Your task to perform on an android device: turn on javascript in the chrome app Image 0: 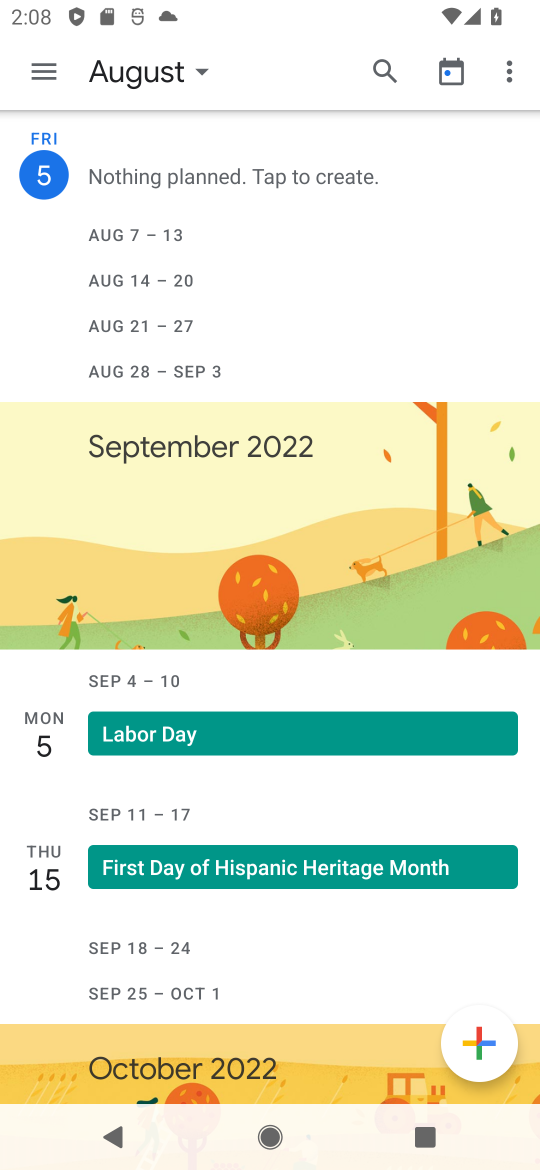
Step 0: press home button
Your task to perform on an android device: turn on javascript in the chrome app Image 1: 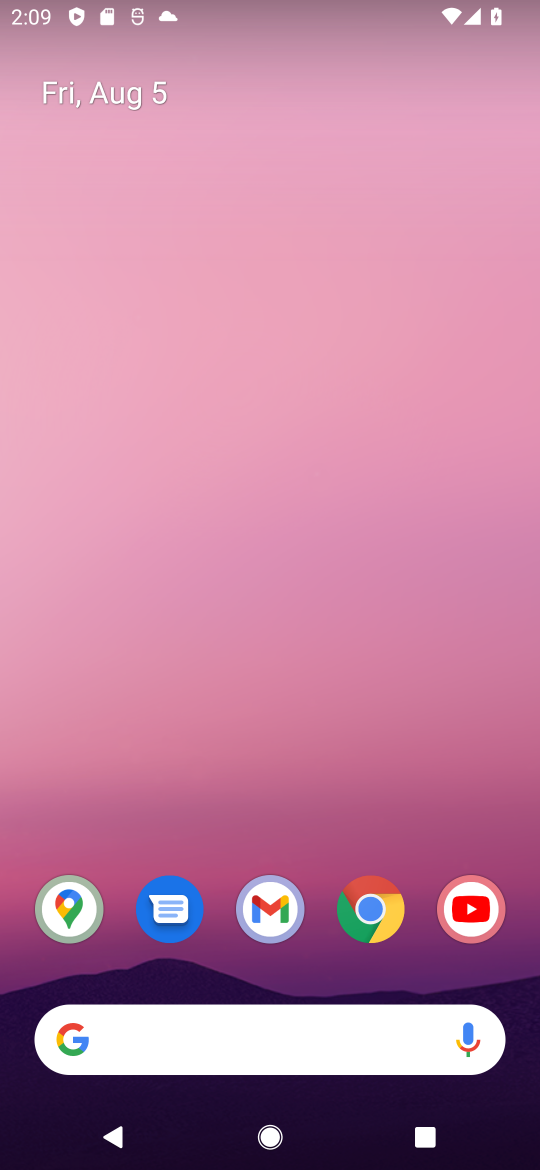
Step 1: click (368, 864)
Your task to perform on an android device: turn on javascript in the chrome app Image 2: 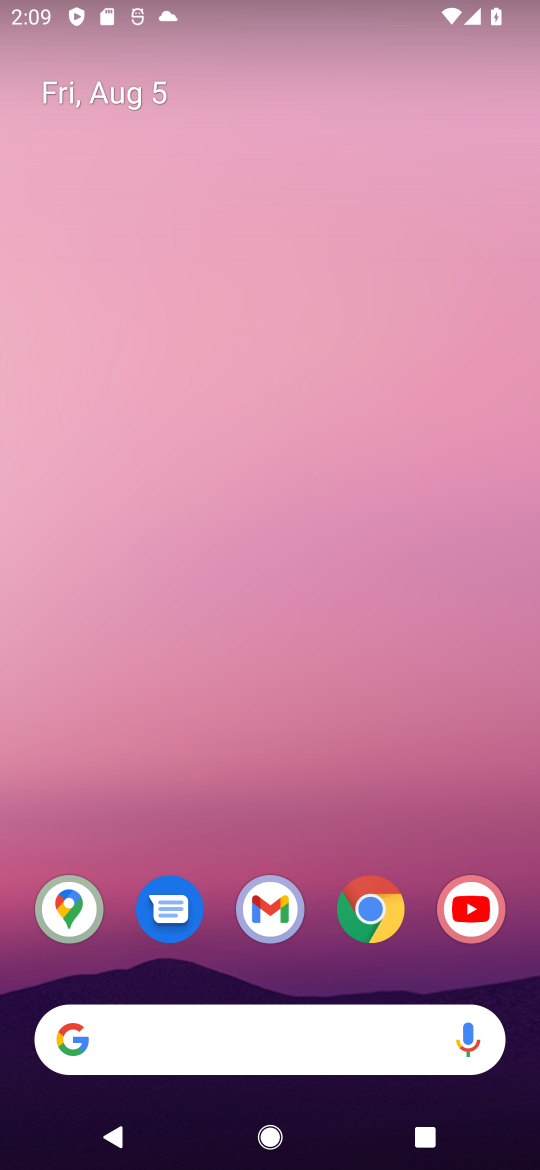
Step 2: click (374, 889)
Your task to perform on an android device: turn on javascript in the chrome app Image 3: 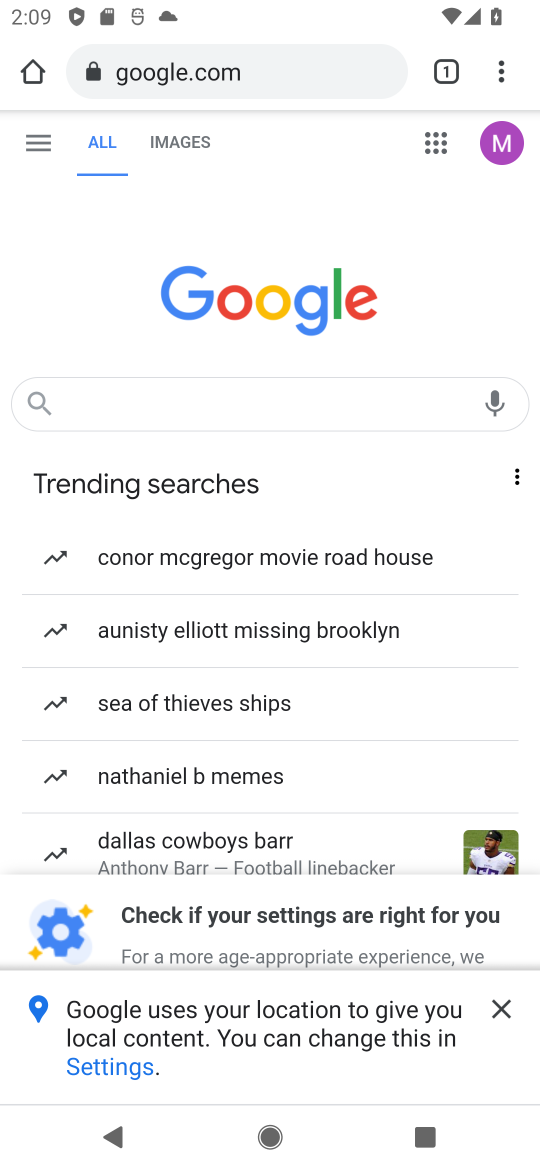
Step 3: click (504, 67)
Your task to perform on an android device: turn on javascript in the chrome app Image 4: 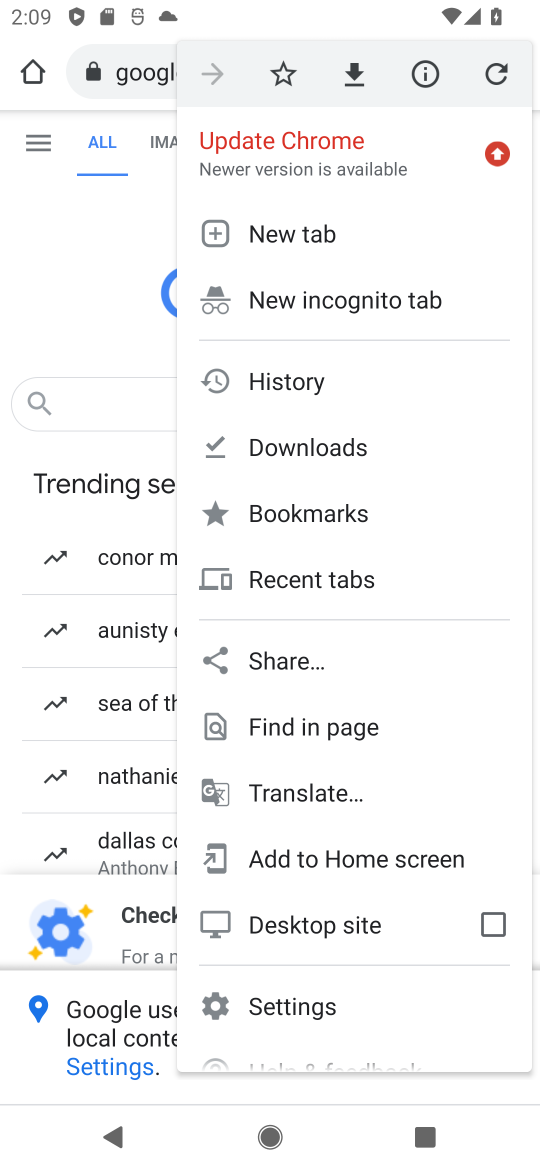
Step 4: click (312, 999)
Your task to perform on an android device: turn on javascript in the chrome app Image 5: 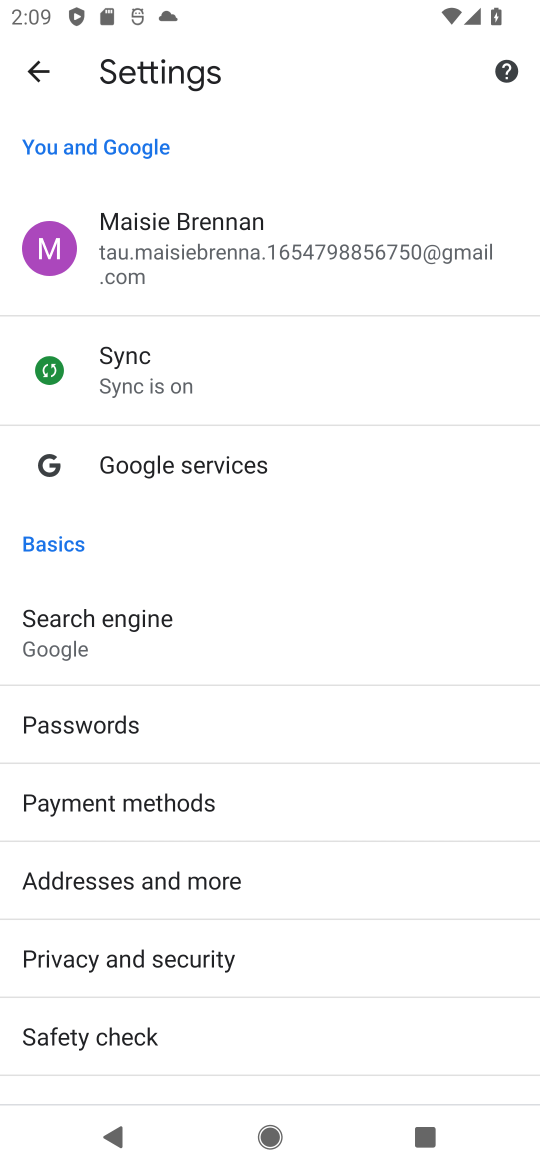
Step 5: drag from (332, 1051) to (356, 395)
Your task to perform on an android device: turn on javascript in the chrome app Image 6: 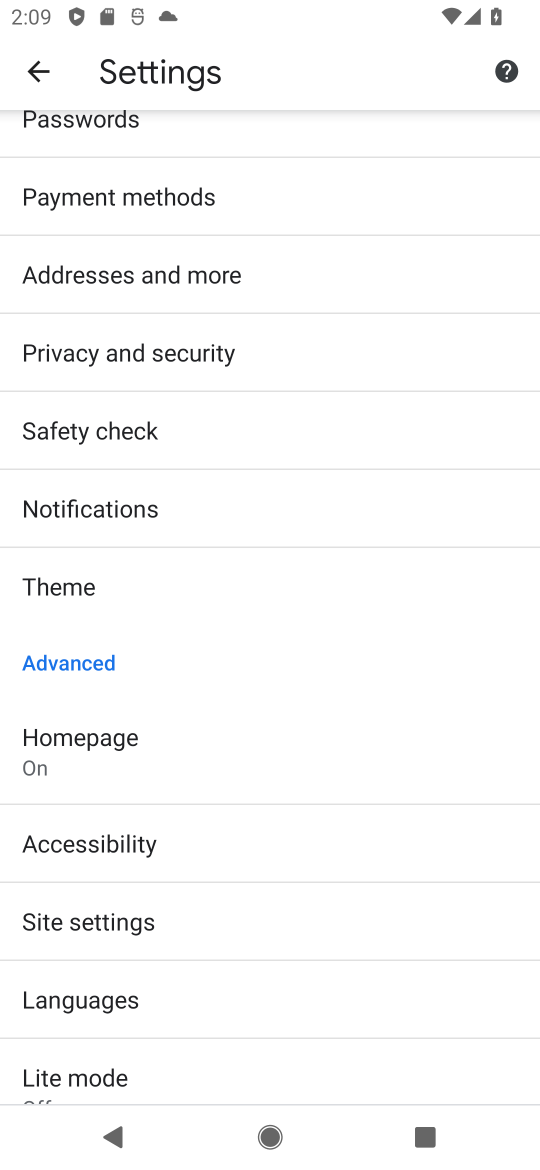
Step 6: click (252, 923)
Your task to perform on an android device: turn on javascript in the chrome app Image 7: 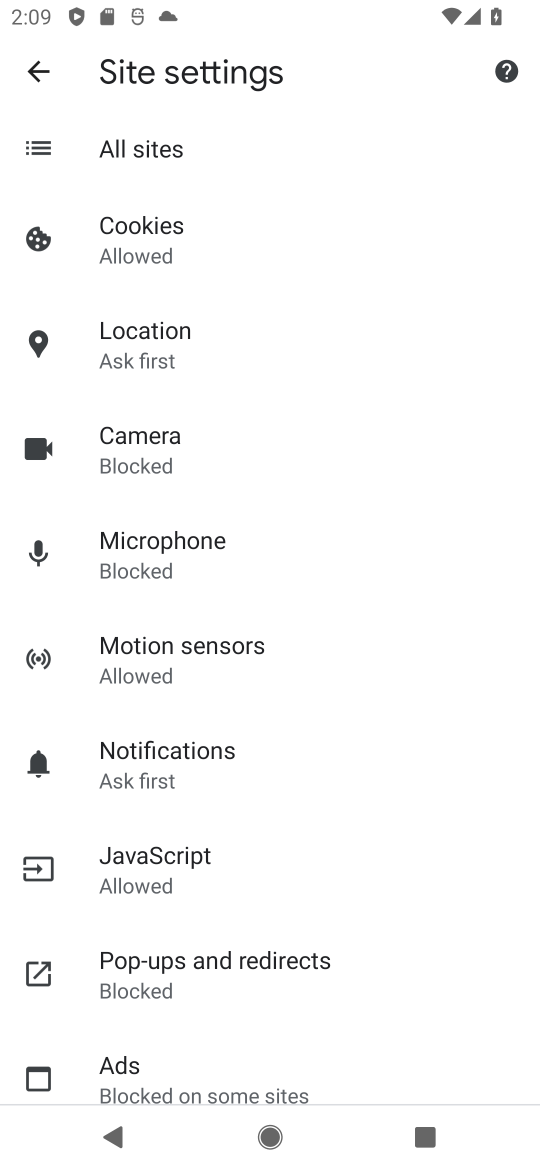
Step 7: click (238, 878)
Your task to perform on an android device: turn on javascript in the chrome app Image 8: 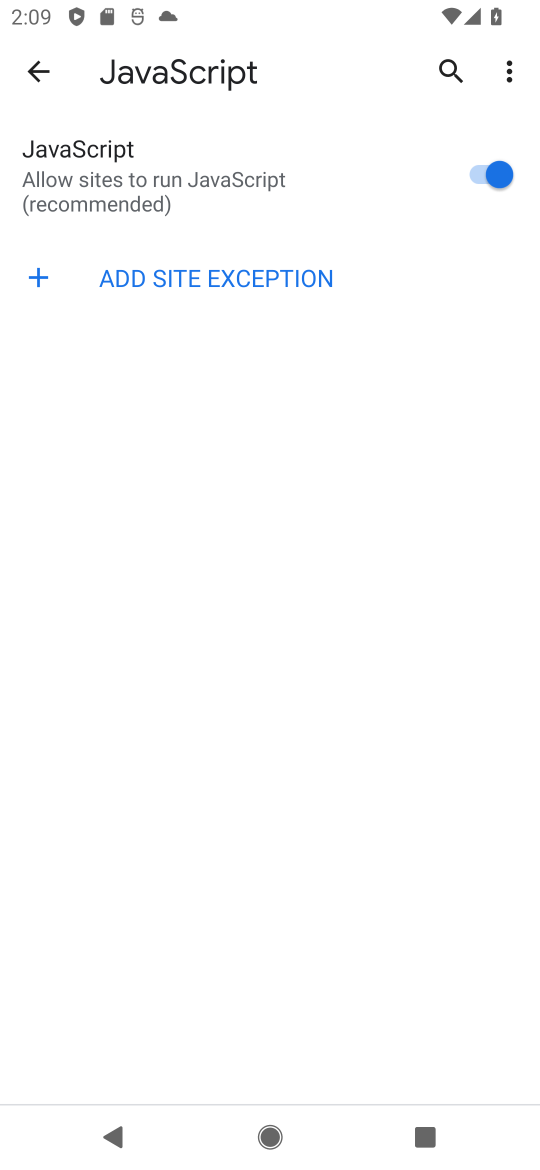
Step 8: task complete